Your task to perform on an android device: Find coffee shops on Maps Image 0: 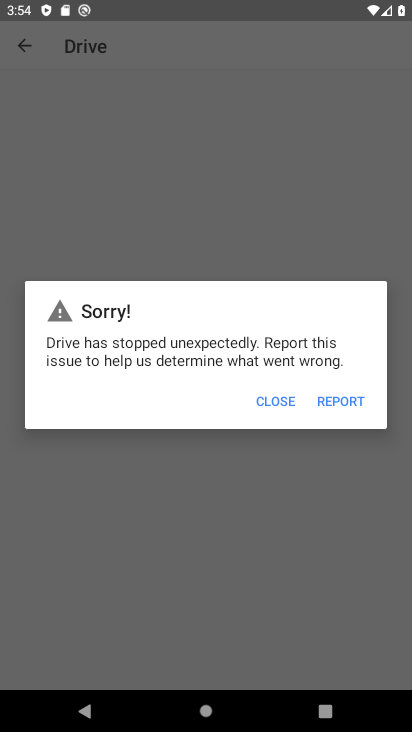
Step 0: click (269, 395)
Your task to perform on an android device: Find coffee shops on Maps Image 1: 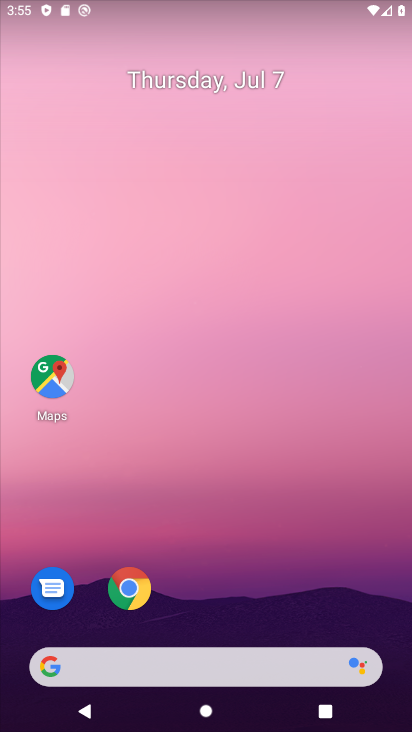
Step 1: drag from (168, 44) to (161, 5)
Your task to perform on an android device: Find coffee shops on Maps Image 2: 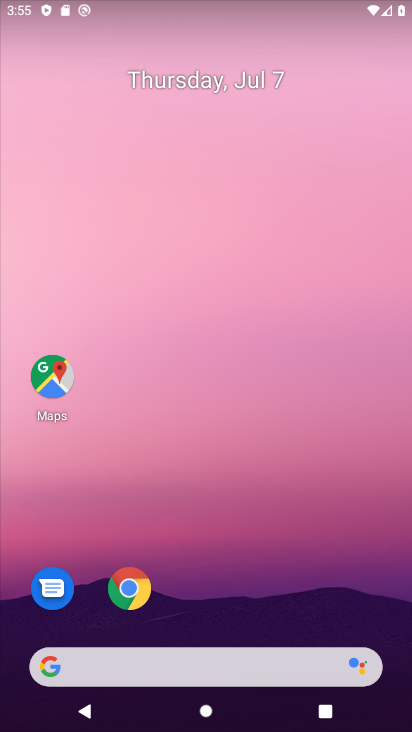
Step 2: click (140, 183)
Your task to perform on an android device: Find coffee shops on Maps Image 3: 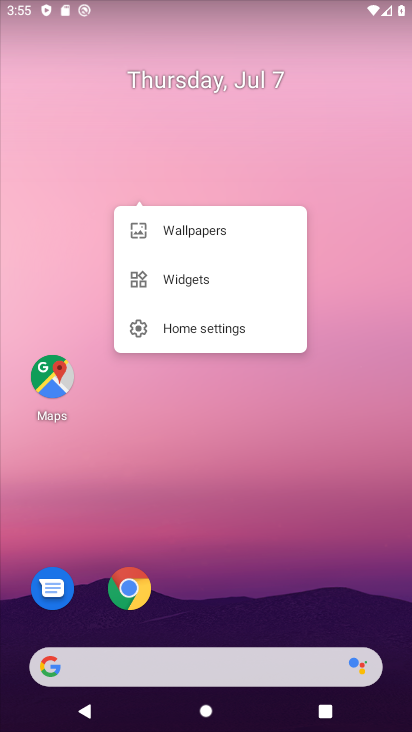
Step 3: click (97, 47)
Your task to perform on an android device: Find coffee shops on Maps Image 4: 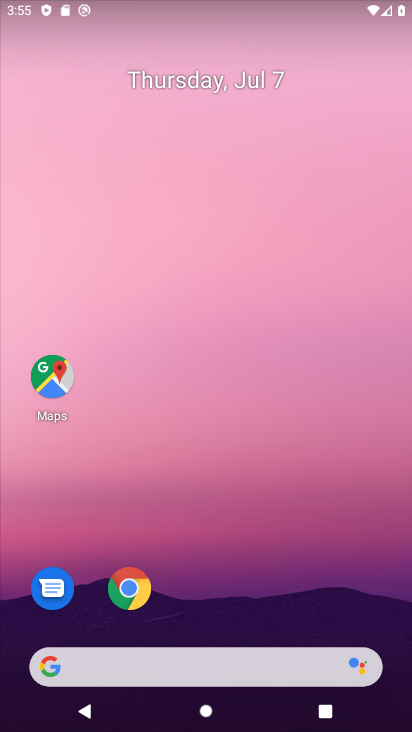
Step 4: click (88, 75)
Your task to perform on an android device: Find coffee shops on Maps Image 5: 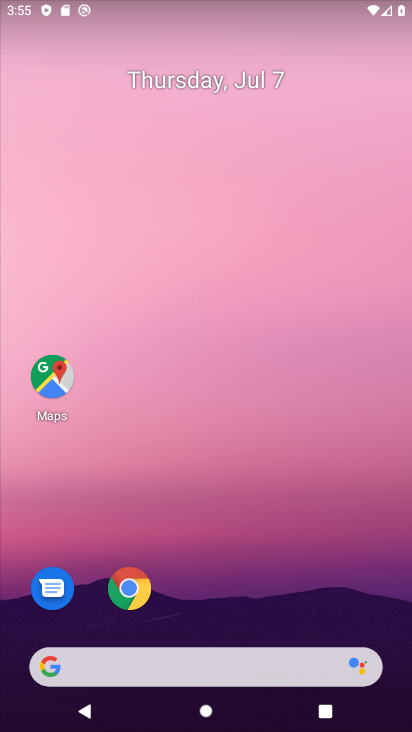
Step 5: drag from (244, 622) to (30, 1)
Your task to perform on an android device: Find coffee shops on Maps Image 6: 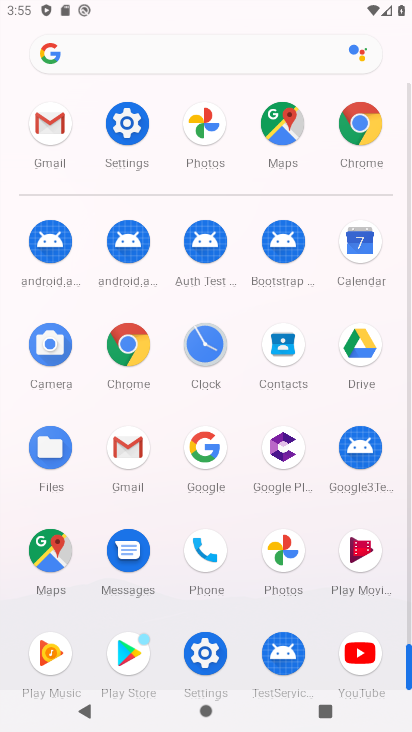
Step 6: drag from (246, 539) to (101, 44)
Your task to perform on an android device: Find coffee shops on Maps Image 7: 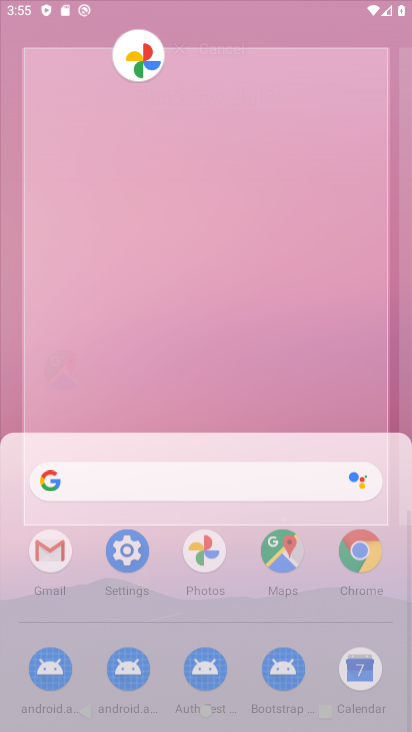
Step 7: click (110, 90)
Your task to perform on an android device: Find coffee shops on Maps Image 8: 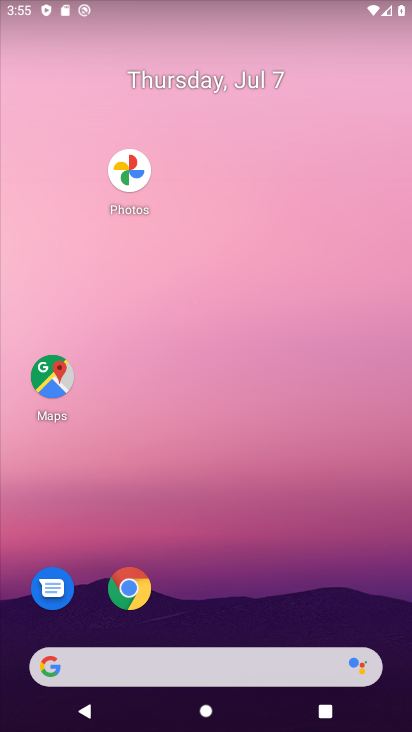
Step 8: click (59, 389)
Your task to perform on an android device: Find coffee shops on Maps Image 9: 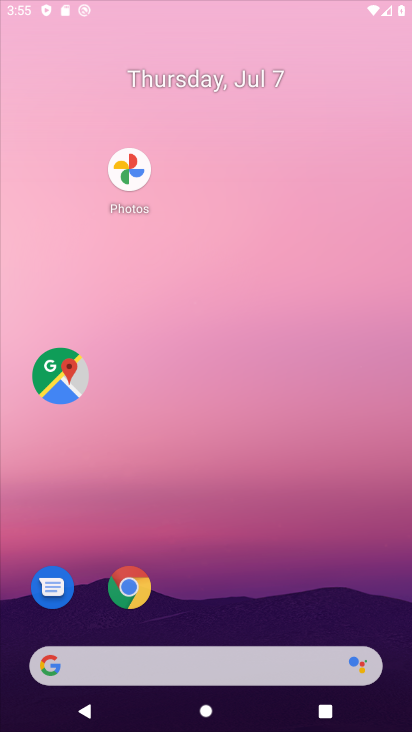
Step 9: click (59, 389)
Your task to perform on an android device: Find coffee shops on Maps Image 10: 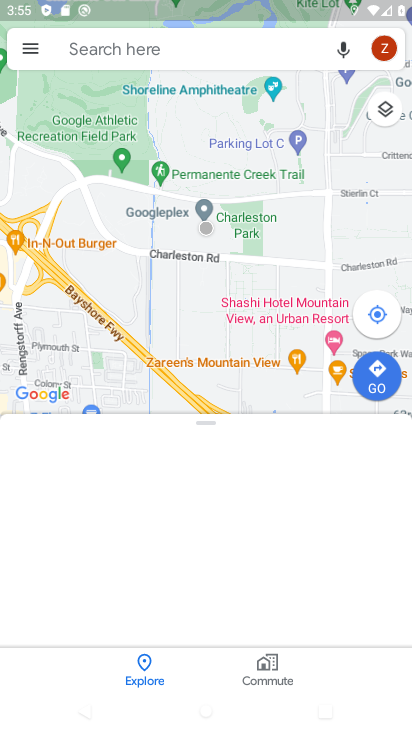
Step 10: click (67, 35)
Your task to perform on an android device: Find coffee shops on Maps Image 11: 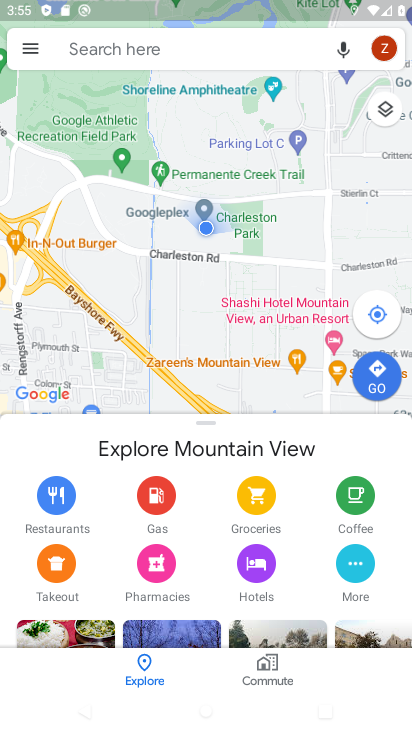
Step 11: click (76, 48)
Your task to perform on an android device: Find coffee shops on Maps Image 12: 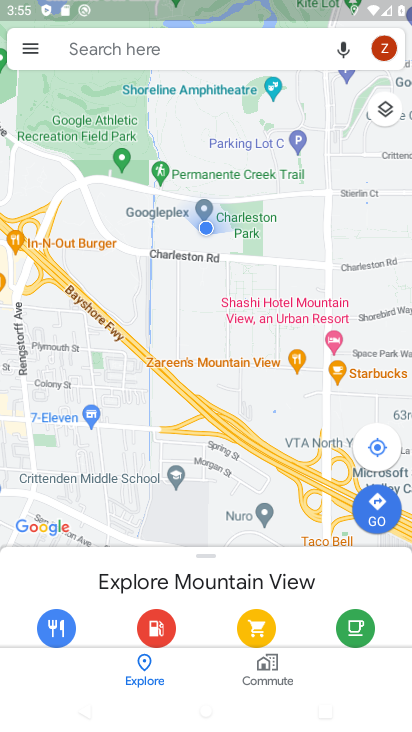
Step 12: click (82, 46)
Your task to perform on an android device: Find coffee shops on Maps Image 13: 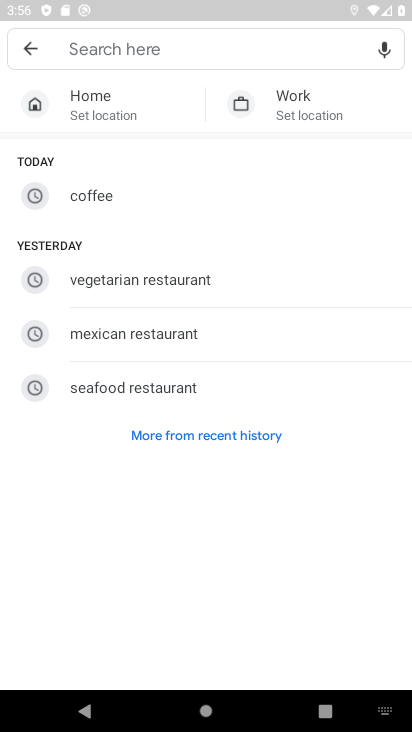
Step 13: type "coffee shops"
Your task to perform on an android device: Find coffee shops on Maps Image 14: 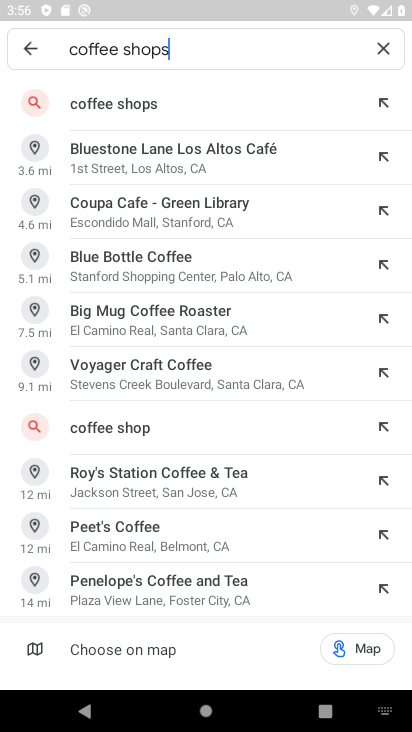
Step 14: click (142, 103)
Your task to perform on an android device: Find coffee shops on Maps Image 15: 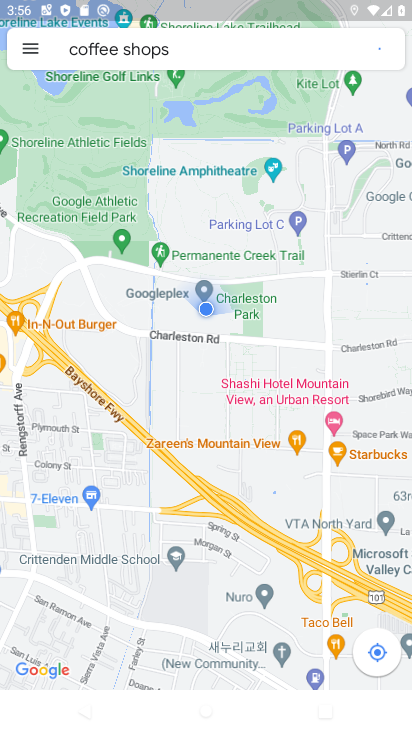
Step 15: click (134, 116)
Your task to perform on an android device: Find coffee shops on Maps Image 16: 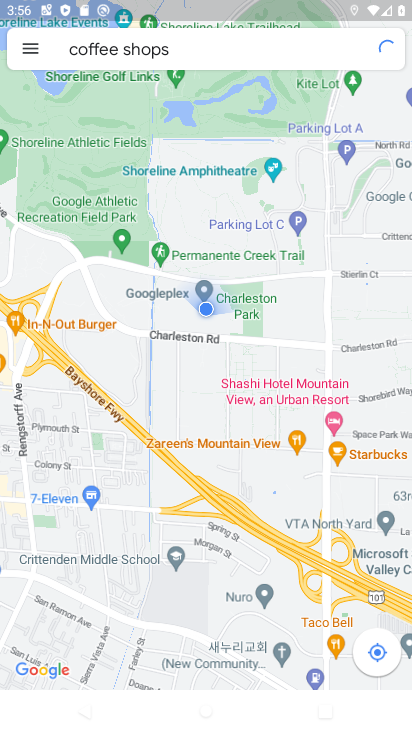
Step 16: click (386, 101)
Your task to perform on an android device: Find coffee shops on Maps Image 17: 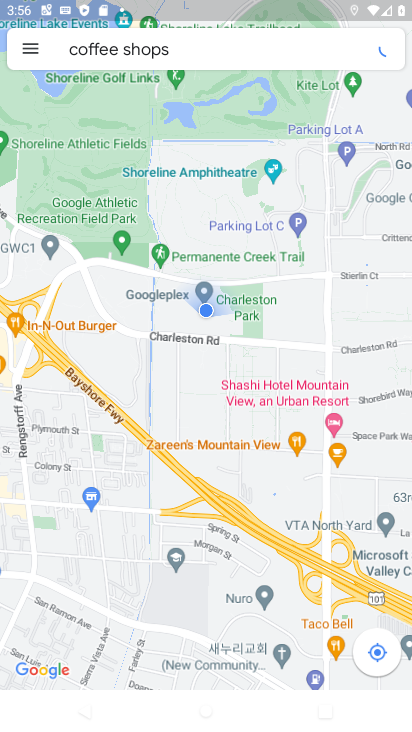
Step 17: click (273, 92)
Your task to perform on an android device: Find coffee shops on Maps Image 18: 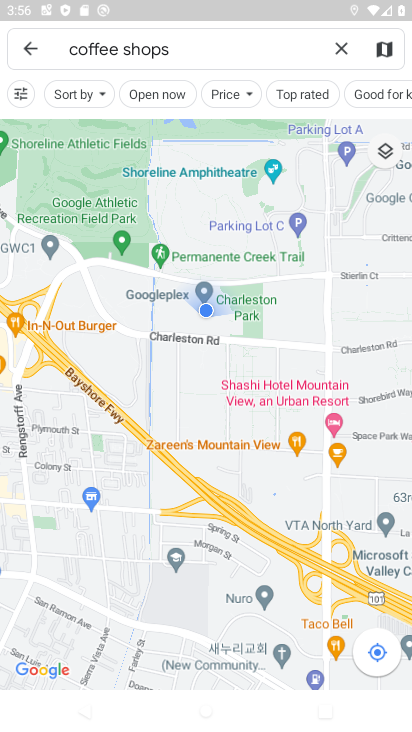
Step 18: click (261, 109)
Your task to perform on an android device: Find coffee shops on Maps Image 19: 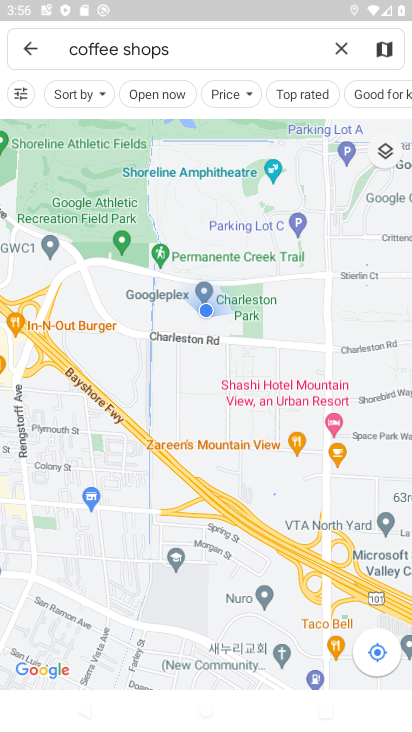
Step 19: click (134, 99)
Your task to perform on an android device: Find coffee shops on Maps Image 20: 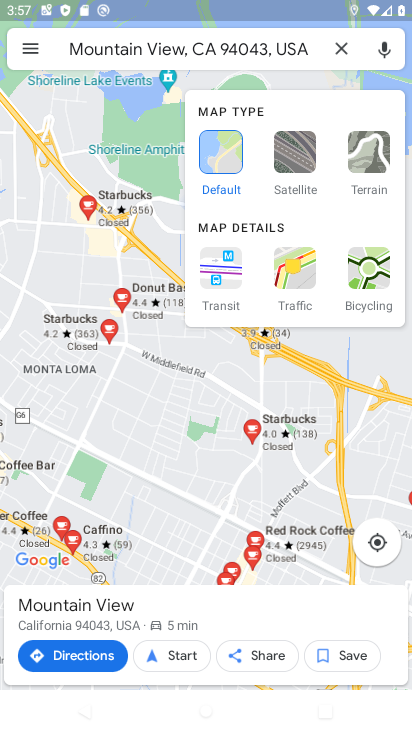
Step 20: task complete